Your task to perform on an android device: Go to privacy settings Image 0: 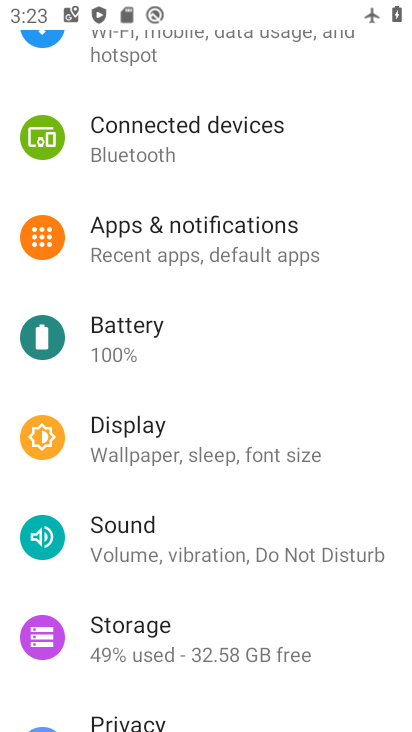
Step 0: press home button
Your task to perform on an android device: Go to privacy settings Image 1: 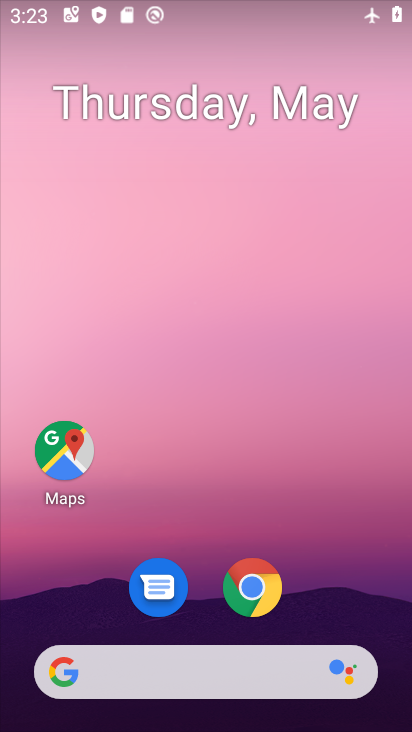
Step 1: drag from (237, 613) to (219, 181)
Your task to perform on an android device: Go to privacy settings Image 2: 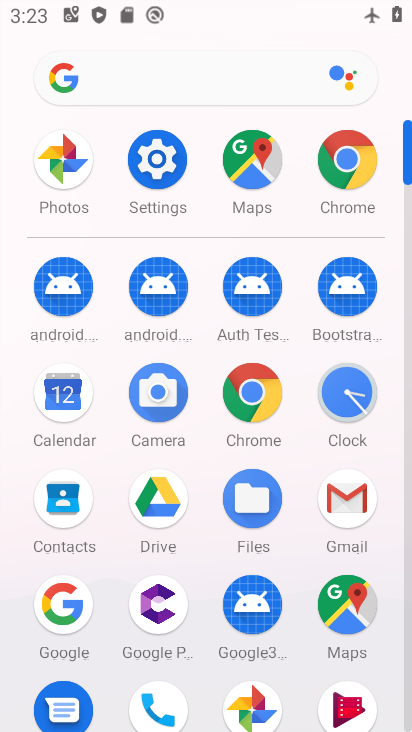
Step 2: click (153, 195)
Your task to perform on an android device: Go to privacy settings Image 3: 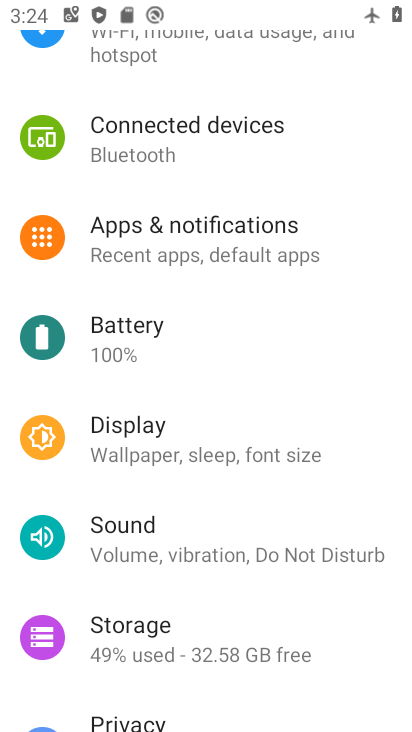
Step 3: drag from (162, 529) to (155, 245)
Your task to perform on an android device: Go to privacy settings Image 4: 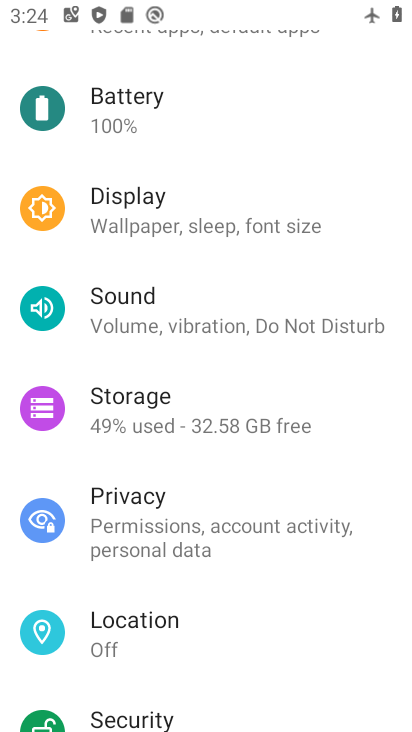
Step 4: click (160, 529)
Your task to perform on an android device: Go to privacy settings Image 5: 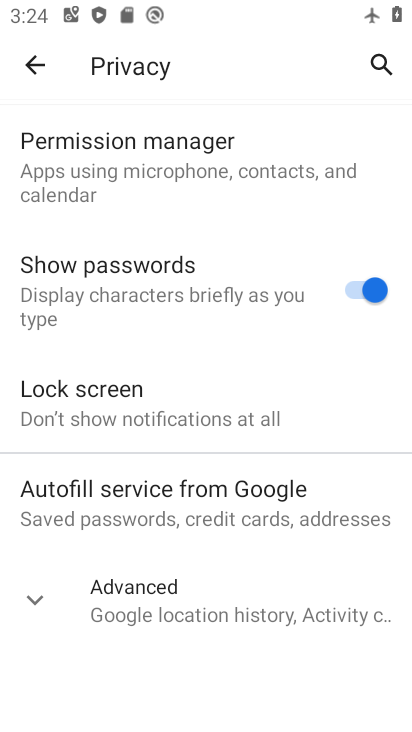
Step 5: task complete